Your task to perform on an android device: Show me popular games on the Play Store Image 0: 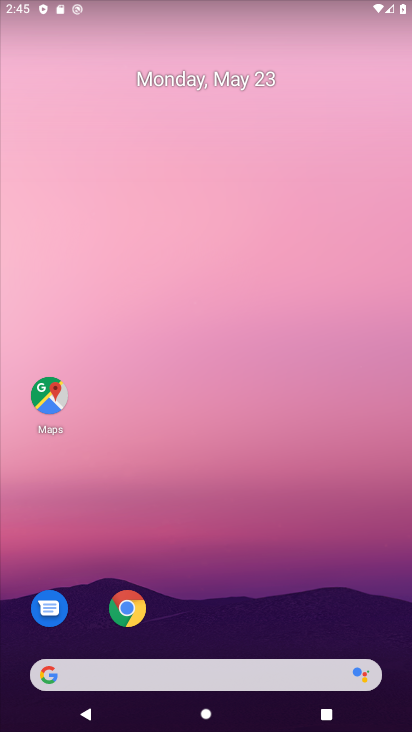
Step 0: drag from (277, 581) to (232, 214)
Your task to perform on an android device: Show me popular games on the Play Store Image 1: 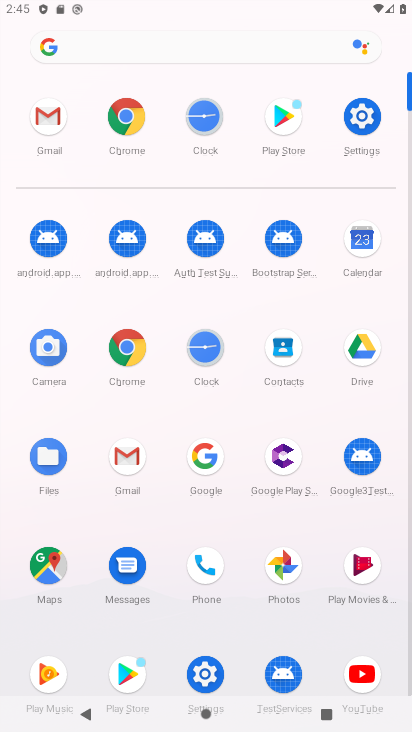
Step 1: drag from (170, 569) to (197, 372)
Your task to perform on an android device: Show me popular games on the Play Store Image 2: 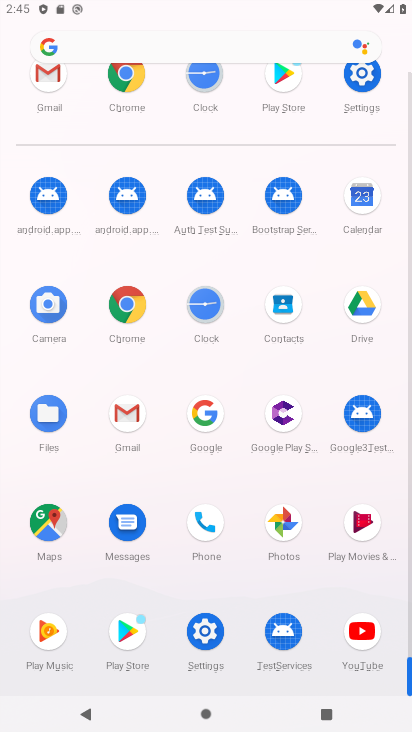
Step 2: click (125, 612)
Your task to perform on an android device: Show me popular games on the Play Store Image 3: 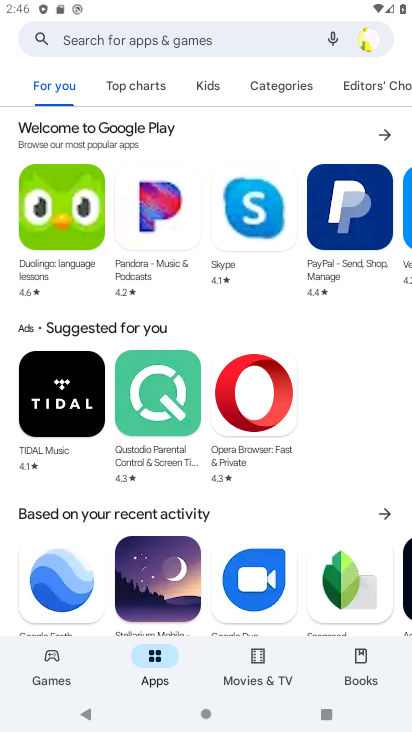
Step 3: task complete